Your task to perform on an android device: turn on improve location accuracy Image 0: 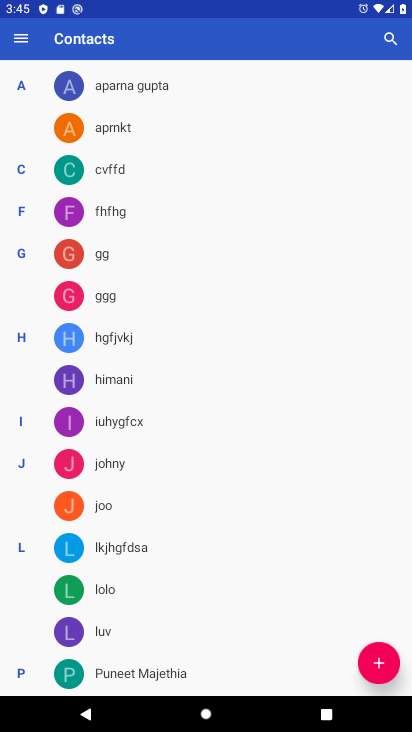
Step 0: press home button
Your task to perform on an android device: turn on improve location accuracy Image 1: 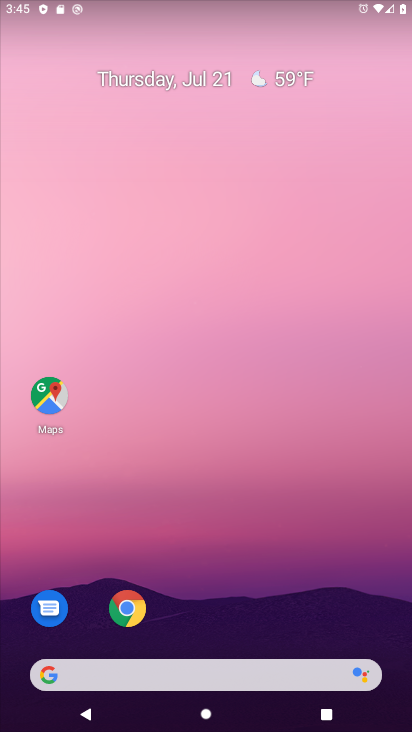
Step 1: drag from (257, 612) to (339, 89)
Your task to perform on an android device: turn on improve location accuracy Image 2: 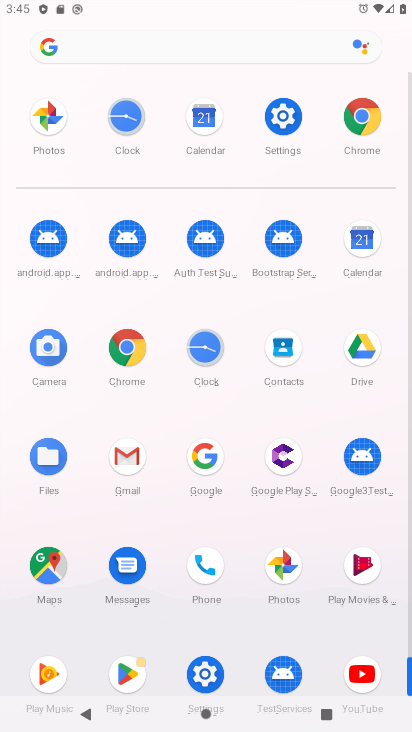
Step 2: click (284, 115)
Your task to perform on an android device: turn on improve location accuracy Image 3: 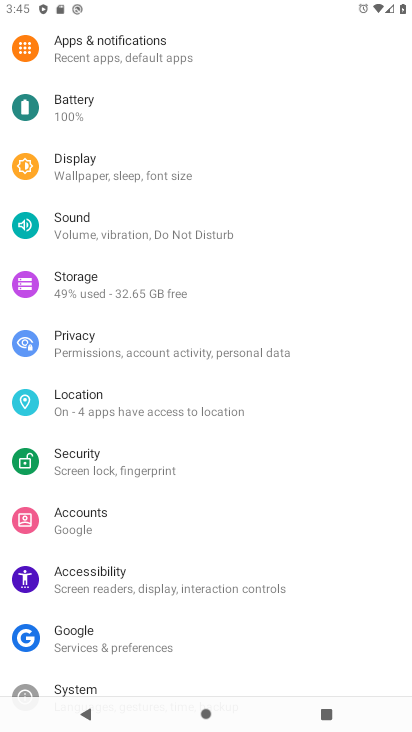
Step 3: click (126, 393)
Your task to perform on an android device: turn on improve location accuracy Image 4: 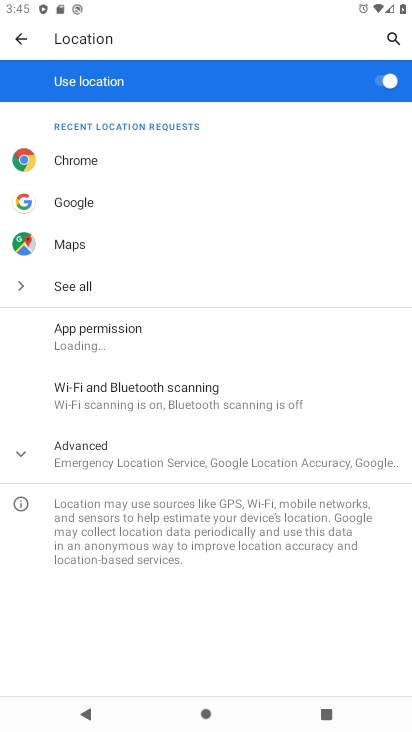
Step 4: click (214, 457)
Your task to perform on an android device: turn on improve location accuracy Image 5: 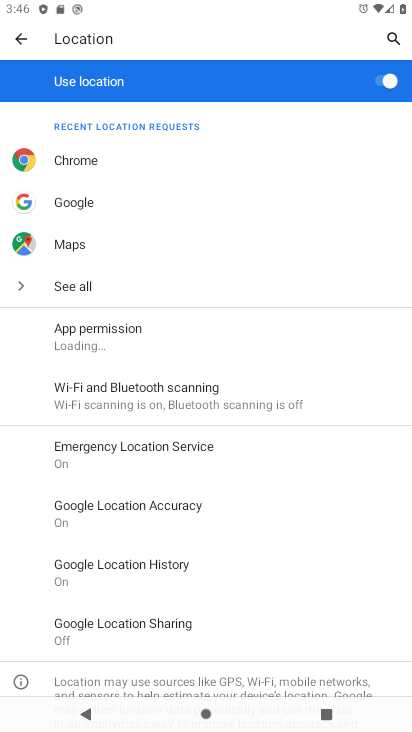
Step 5: click (181, 505)
Your task to perform on an android device: turn on improve location accuracy Image 6: 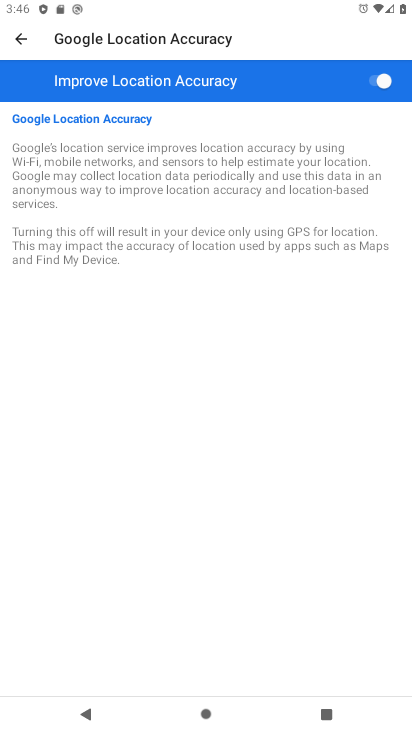
Step 6: task complete